Your task to perform on an android device: make emails show in primary in the gmail app Image 0: 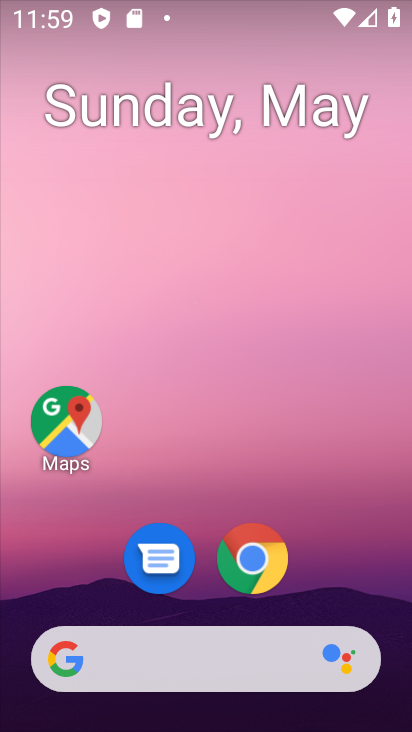
Step 0: drag from (386, 582) to (398, 143)
Your task to perform on an android device: make emails show in primary in the gmail app Image 1: 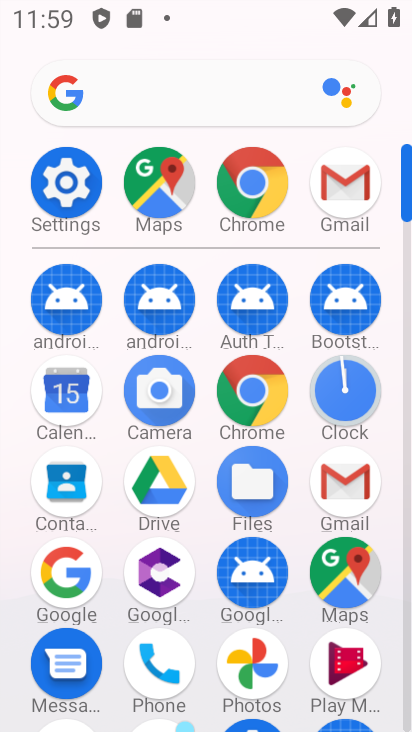
Step 1: click (357, 483)
Your task to perform on an android device: make emails show in primary in the gmail app Image 2: 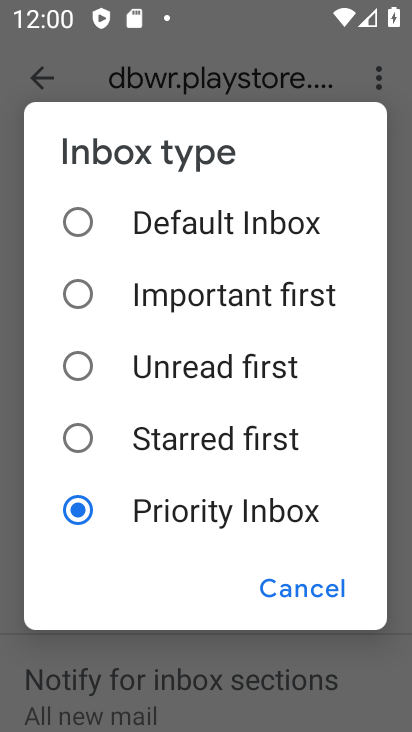
Step 2: click (322, 597)
Your task to perform on an android device: make emails show in primary in the gmail app Image 3: 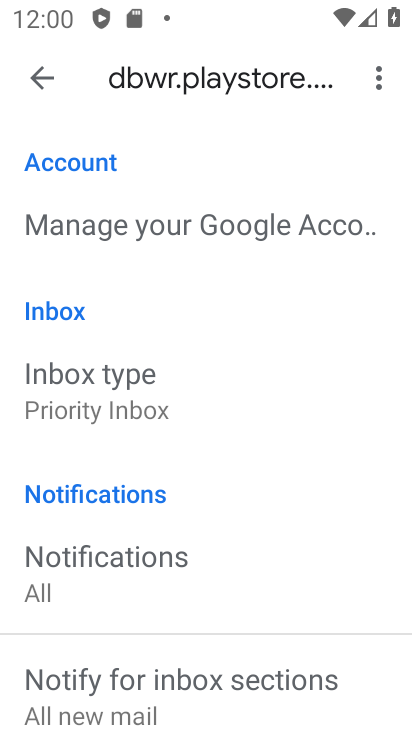
Step 3: drag from (368, 602) to (368, 487)
Your task to perform on an android device: make emails show in primary in the gmail app Image 4: 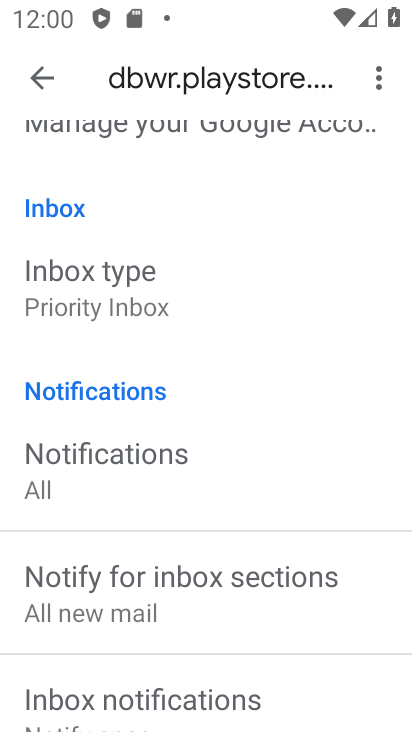
Step 4: click (115, 302)
Your task to perform on an android device: make emails show in primary in the gmail app Image 5: 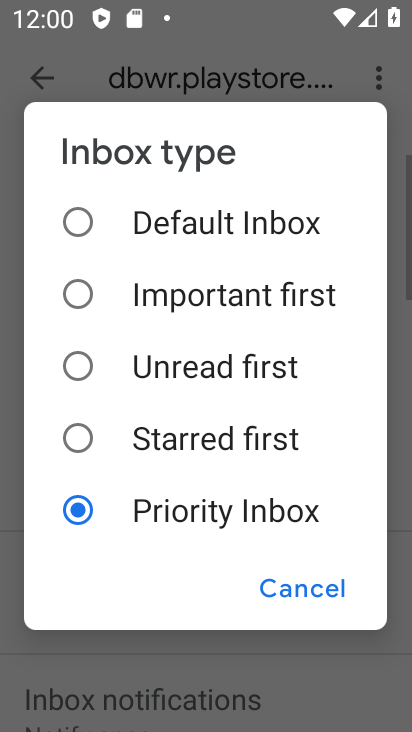
Step 5: click (111, 221)
Your task to perform on an android device: make emails show in primary in the gmail app Image 6: 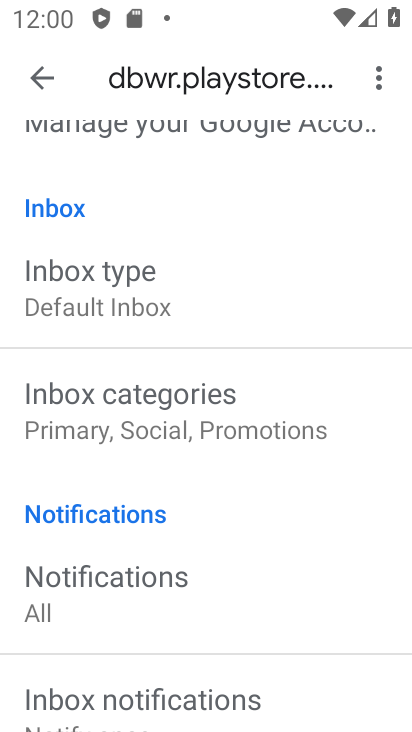
Step 6: click (237, 416)
Your task to perform on an android device: make emails show in primary in the gmail app Image 7: 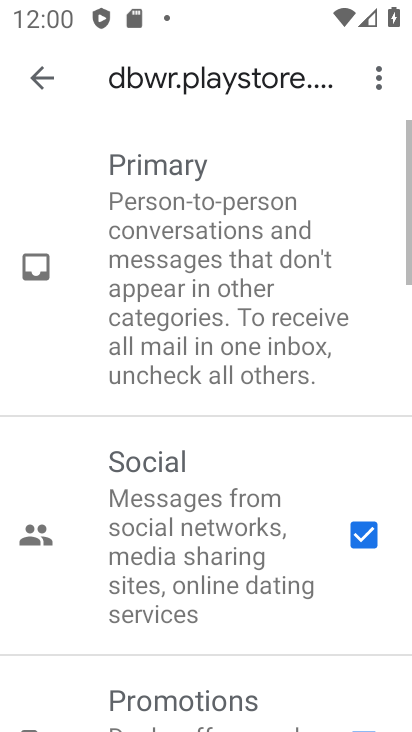
Step 7: drag from (288, 611) to (318, 386)
Your task to perform on an android device: make emails show in primary in the gmail app Image 8: 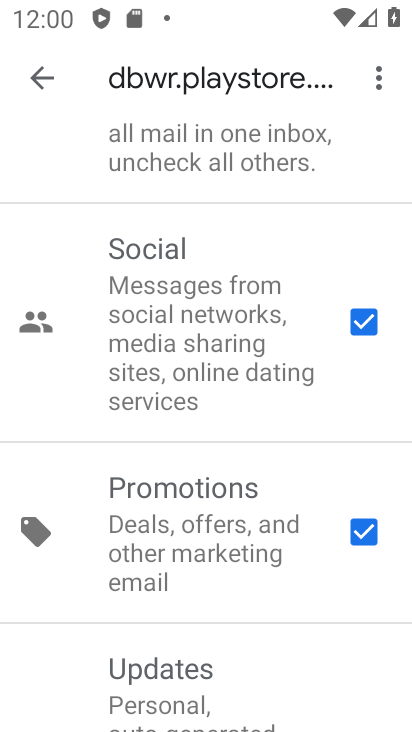
Step 8: click (356, 330)
Your task to perform on an android device: make emails show in primary in the gmail app Image 9: 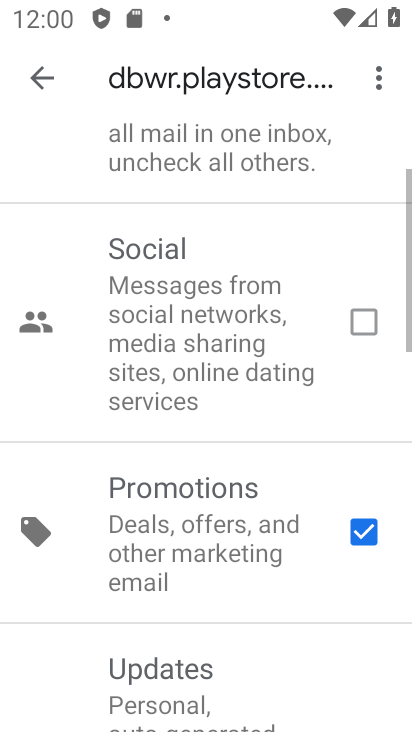
Step 9: click (359, 532)
Your task to perform on an android device: make emails show in primary in the gmail app Image 10: 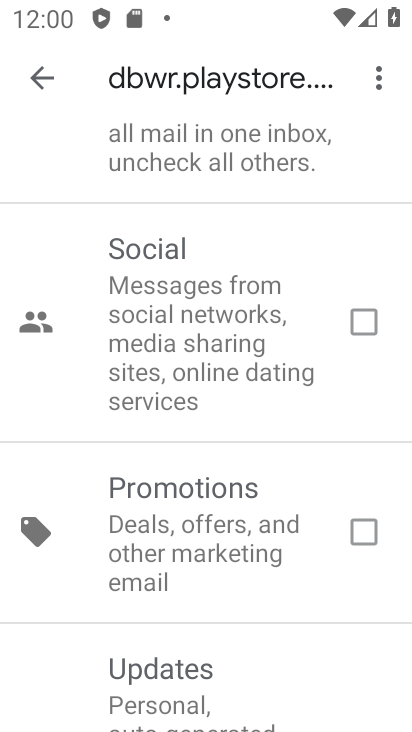
Step 10: task complete